Your task to perform on an android device: change the clock display to analog Image 0: 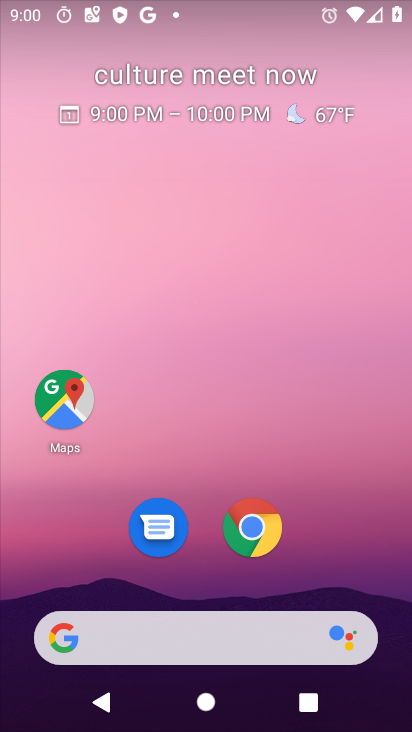
Step 0: drag from (227, 728) to (221, 180)
Your task to perform on an android device: change the clock display to analog Image 1: 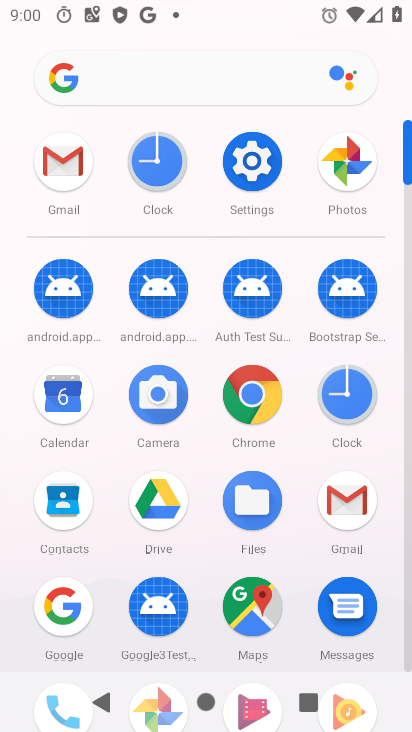
Step 1: click (350, 386)
Your task to perform on an android device: change the clock display to analog Image 2: 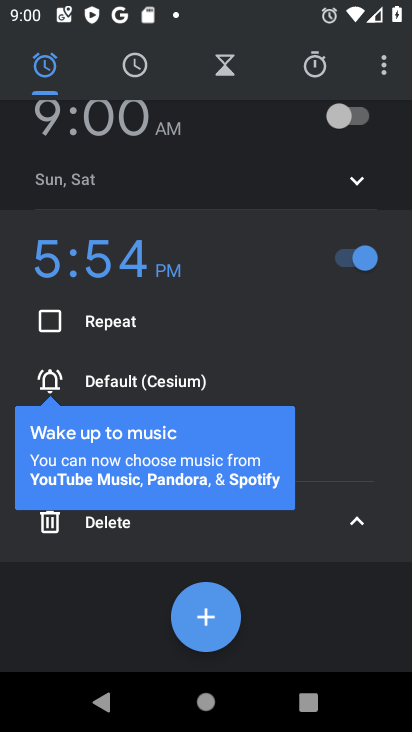
Step 2: click (386, 73)
Your task to perform on an android device: change the clock display to analog Image 3: 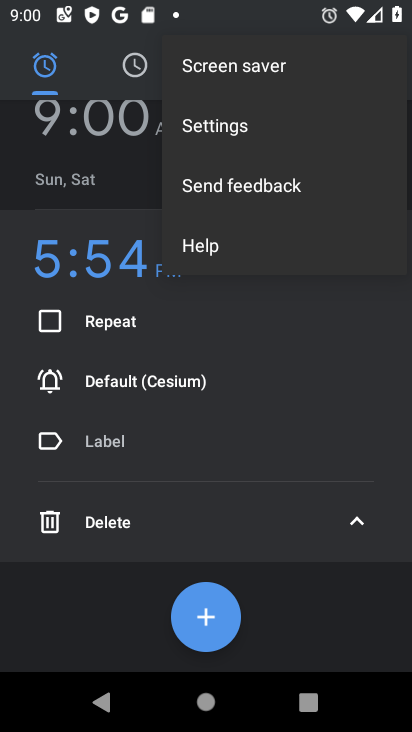
Step 3: click (226, 129)
Your task to perform on an android device: change the clock display to analog Image 4: 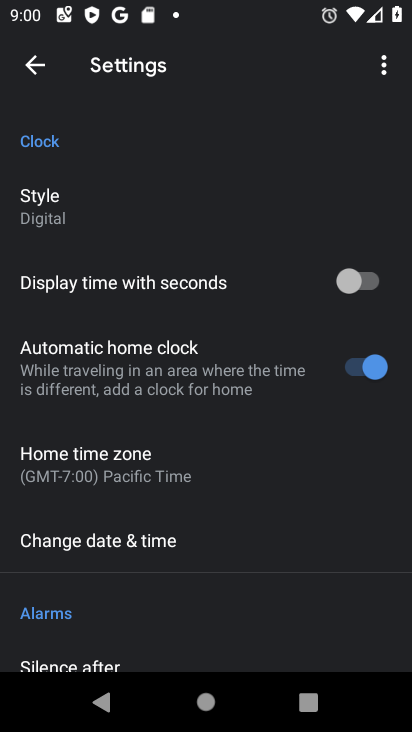
Step 4: click (47, 217)
Your task to perform on an android device: change the clock display to analog Image 5: 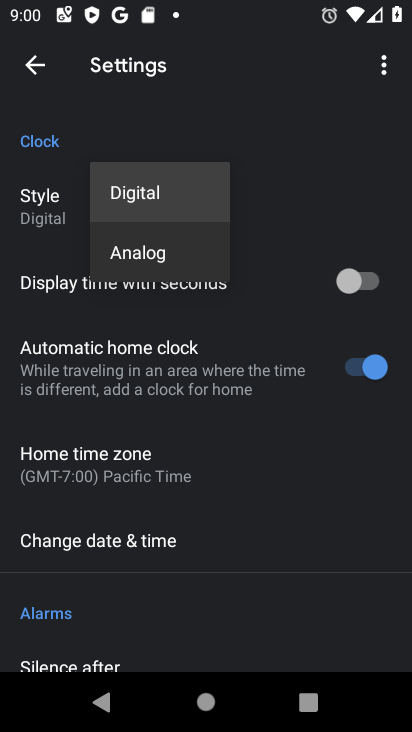
Step 5: click (148, 244)
Your task to perform on an android device: change the clock display to analog Image 6: 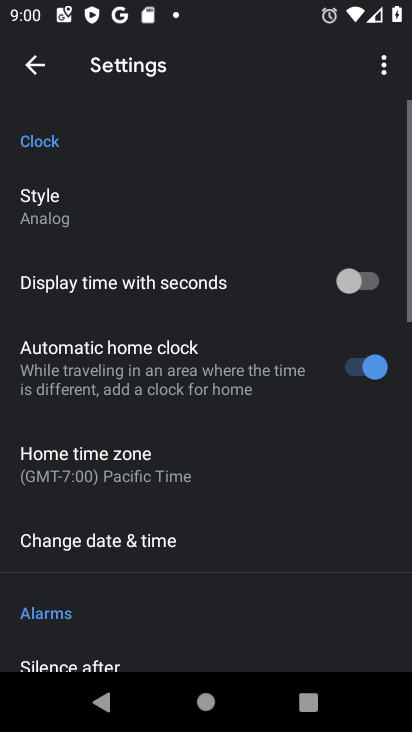
Step 6: task complete